Your task to perform on an android device: install app "Chime – Mobile Banking" Image 0: 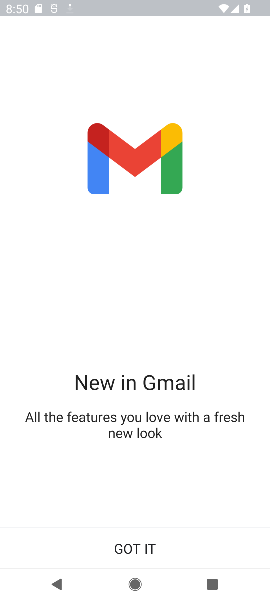
Step 0: press home button
Your task to perform on an android device: install app "Chime – Mobile Banking" Image 1: 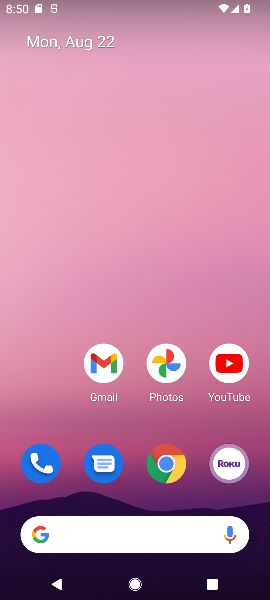
Step 1: drag from (122, 234) to (120, 88)
Your task to perform on an android device: install app "Chime – Mobile Banking" Image 2: 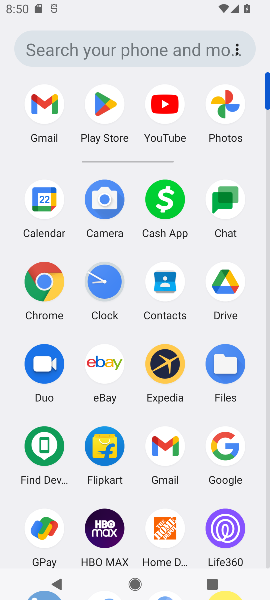
Step 2: click (98, 96)
Your task to perform on an android device: install app "Chime – Mobile Banking" Image 3: 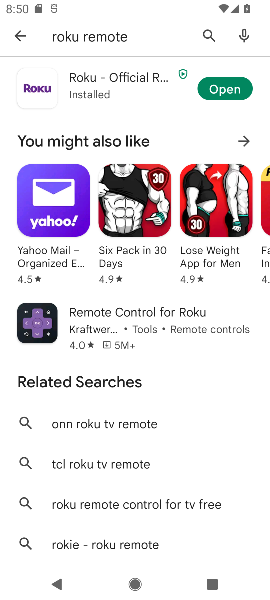
Step 3: click (23, 37)
Your task to perform on an android device: install app "Chime – Mobile Banking" Image 4: 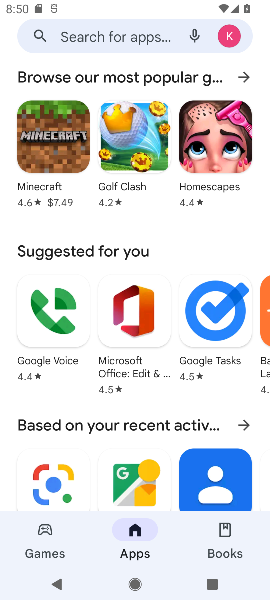
Step 4: click (82, 37)
Your task to perform on an android device: install app "Chime – Mobile Banking" Image 5: 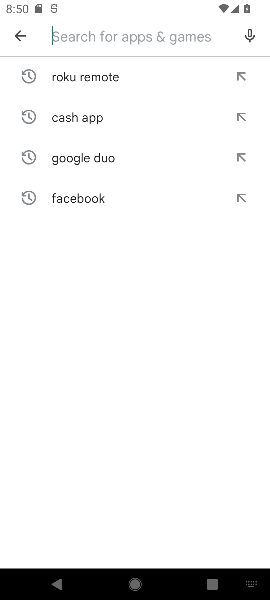
Step 5: type "Chime"
Your task to perform on an android device: install app "Chime – Mobile Banking" Image 6: 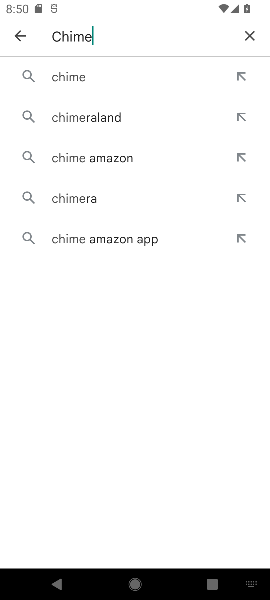
Step 6: click (73, 76)
Your task to perform on an android device: install app "Chime – Mobile Banking" Image 7: 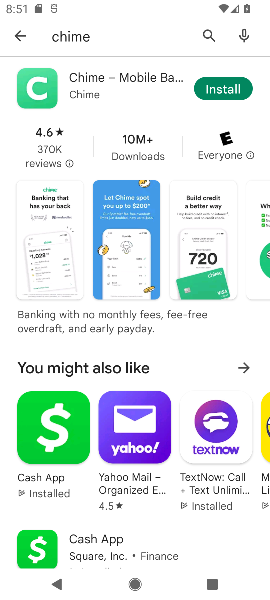
Step 7: click (229, 91)
Your task to perform on an android device: install app "Chime – Mobile Banking" Image 8: 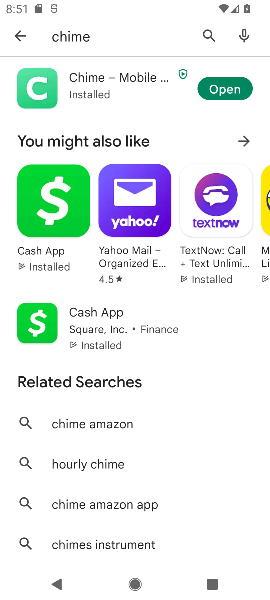
Step 8: click (223, 88)
Your task to perform on an android device: install app "Chime – Mobile Banking" Image 9: 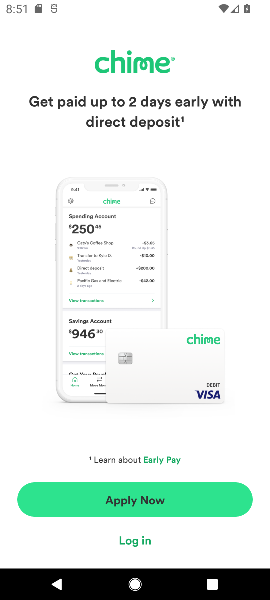
Step 9: task complete